Your task to perform on an android device: Search for the best rated kitchen reno kits on Lowes.com Image 0: 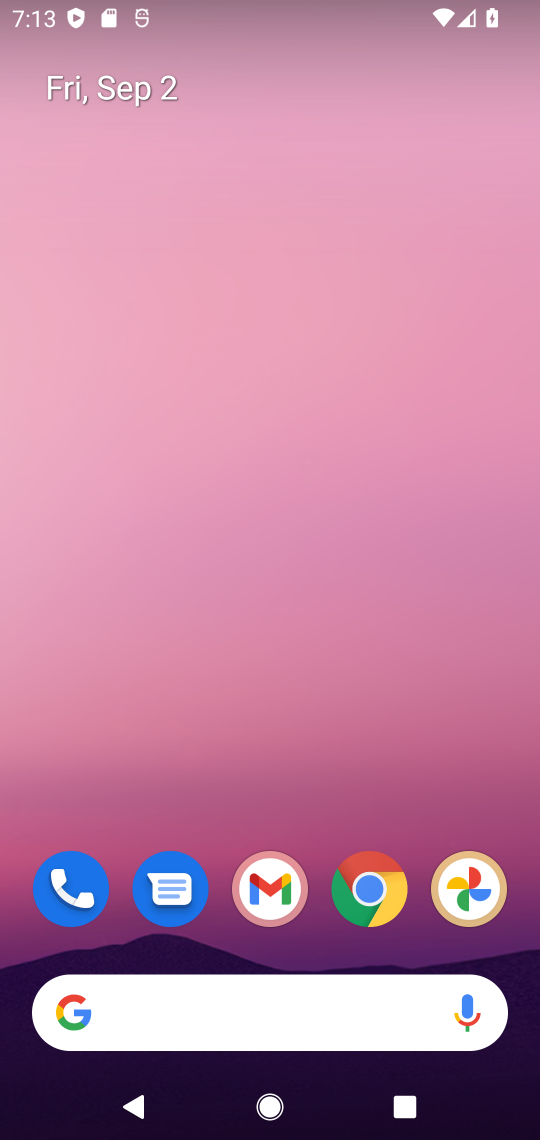
Step 0: click (315, 982)
Your task to perform on an android device: Search for the best rated kitchen reno kits on Lowes.com Image 1: 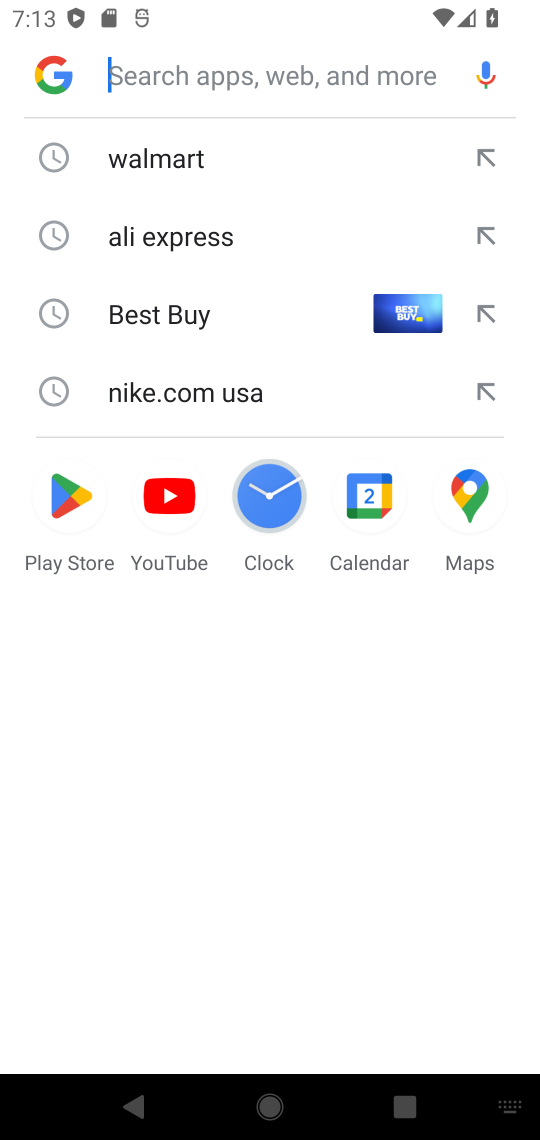
Step 1: type "Lowes.com"
Your task to perform on an android device: Search for the best rated kitchen reno kits on Lowes.com Image 2: 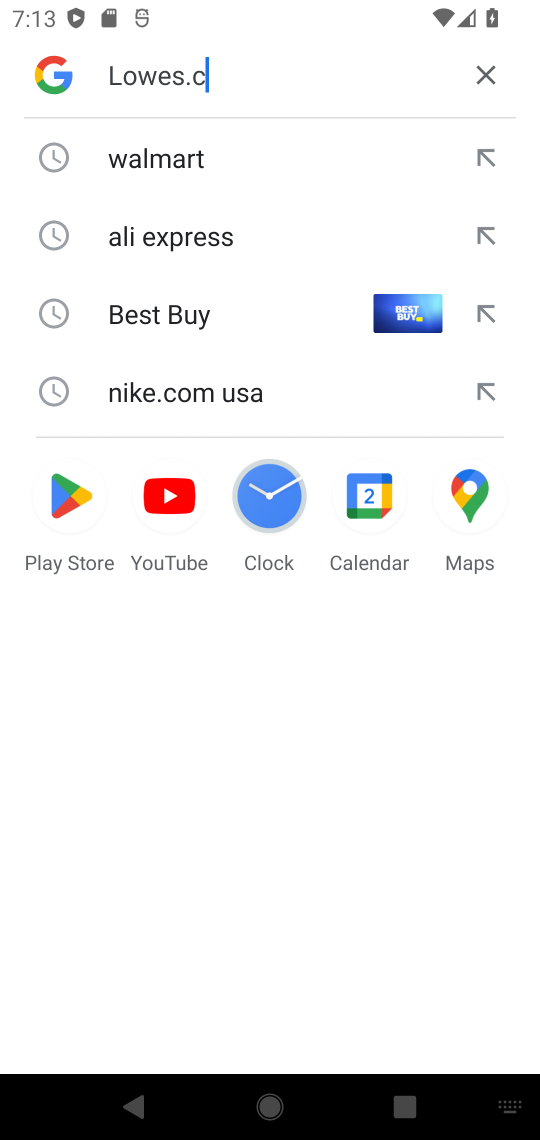
Step 2: type ""
Your task to perform on an android device: Search for the best rated kitchen reno kits on Lowes.com Image 3: 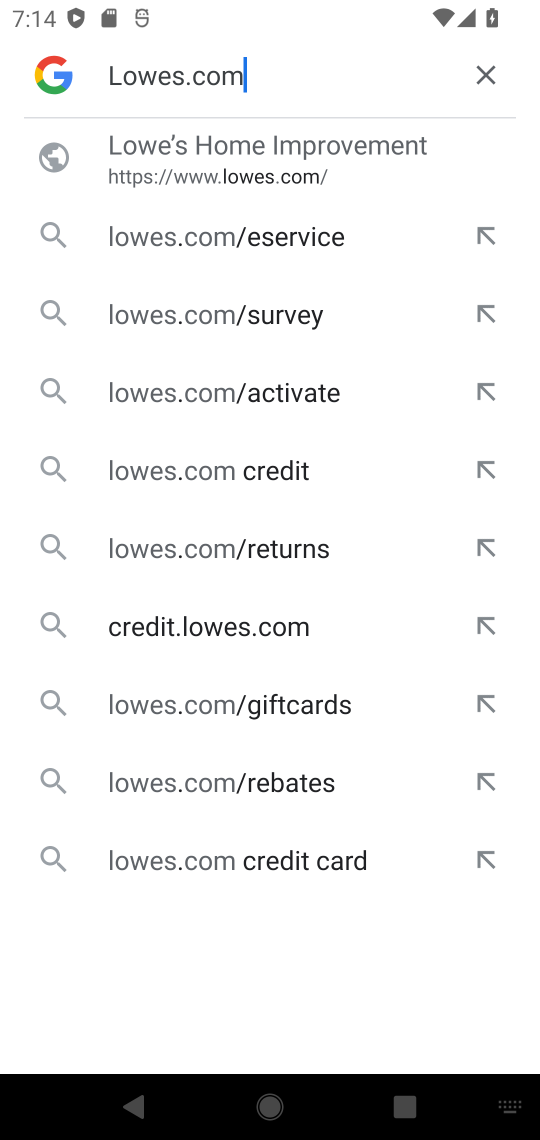
Step 3: click (235, 170)
Your task to perform on an android device: Search for the best rated kitchen reno kits on Lowes.com Image 4: 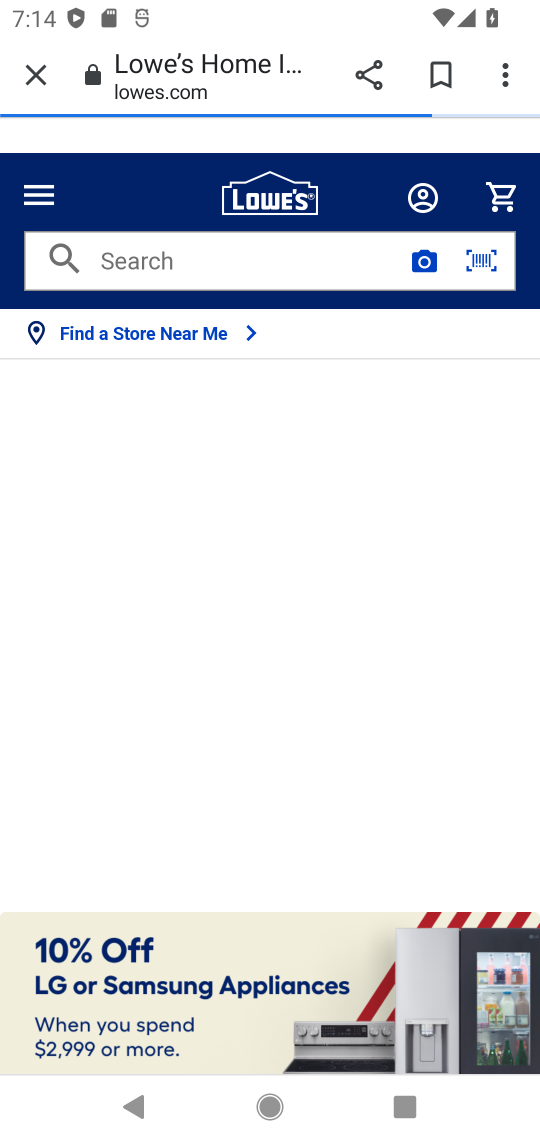
Step 4: click (248, 190)
Your task to perform on an android device: Search for the best rated kitchen reno kits on Lowes.com Image 5: 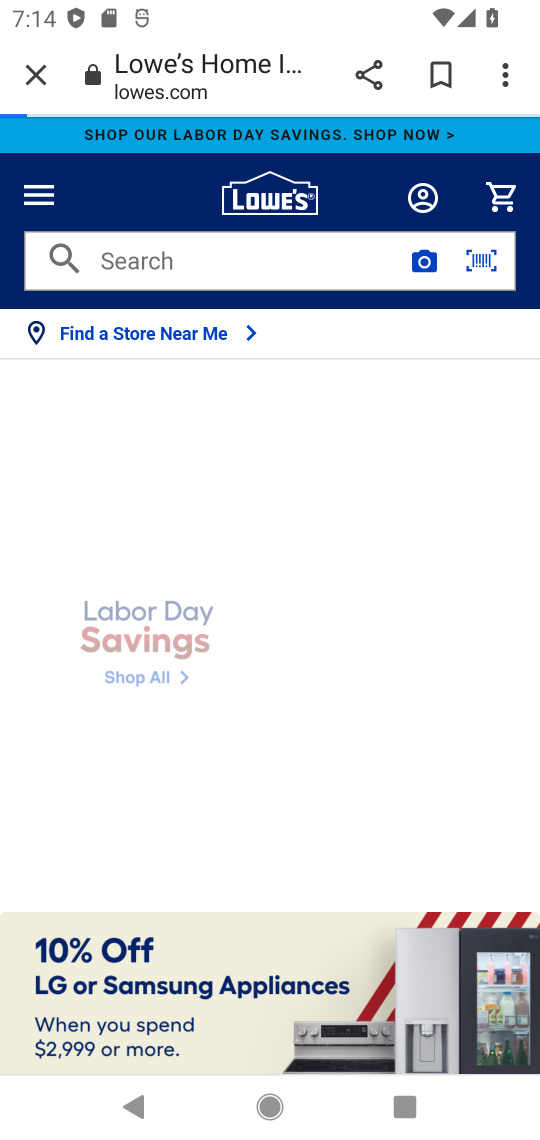
Step 5: click (256, 274)
Your task to perform on an android device: Search for the best rated kitchen reno kits on Lowes.com Image 6: 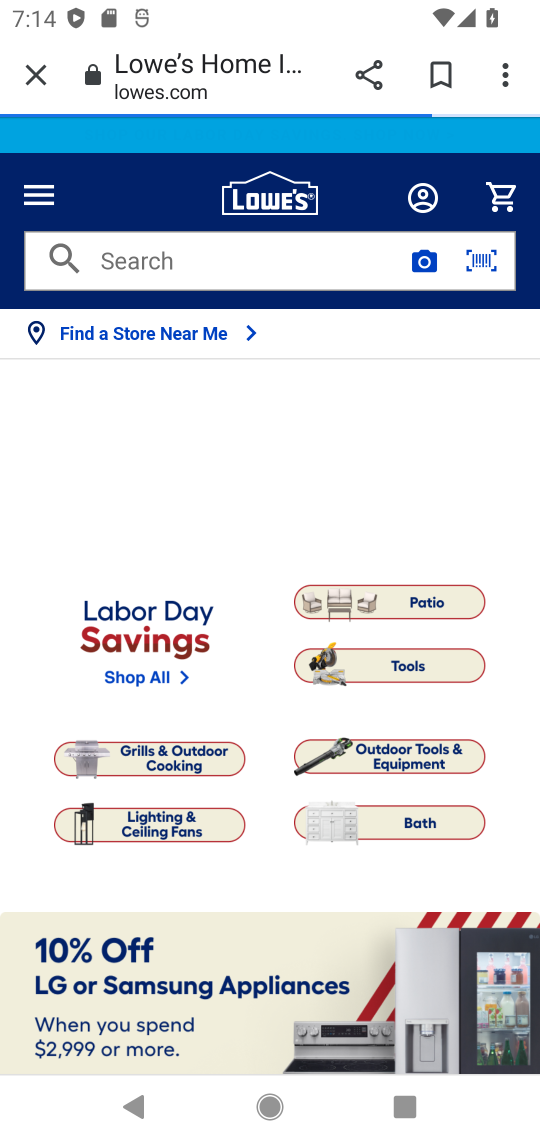
Step 6: click (245, 261)
Your task to perform on an android device: Search for the best rated kitchen reno kits on Lowes.com Image 7: 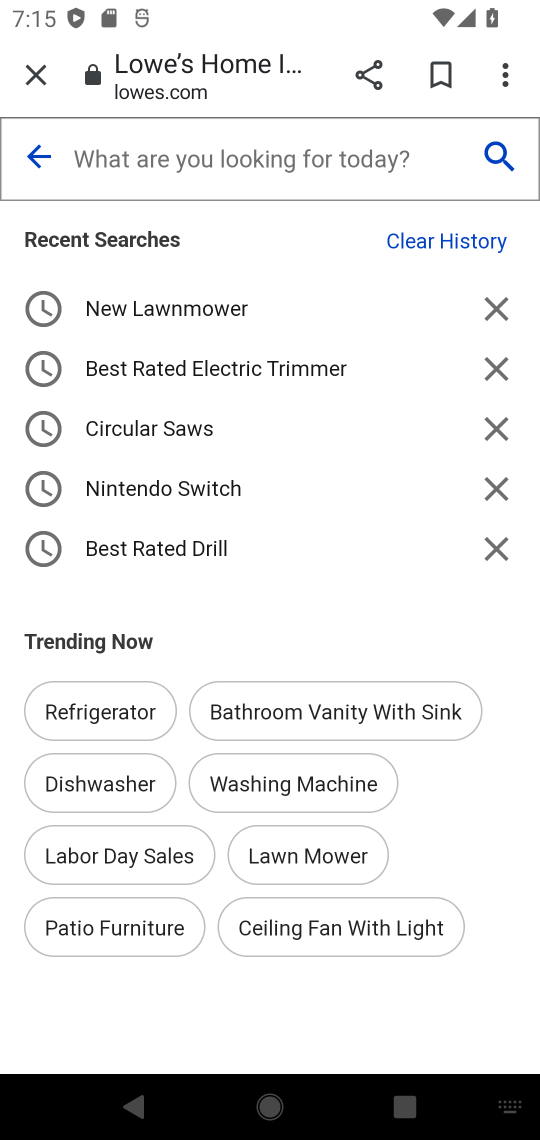
Step 7: type "kitchen reno kits"
Your task to perform on an android device: Search for the best rated kitchen reno kits on Lowes.com Image 8: 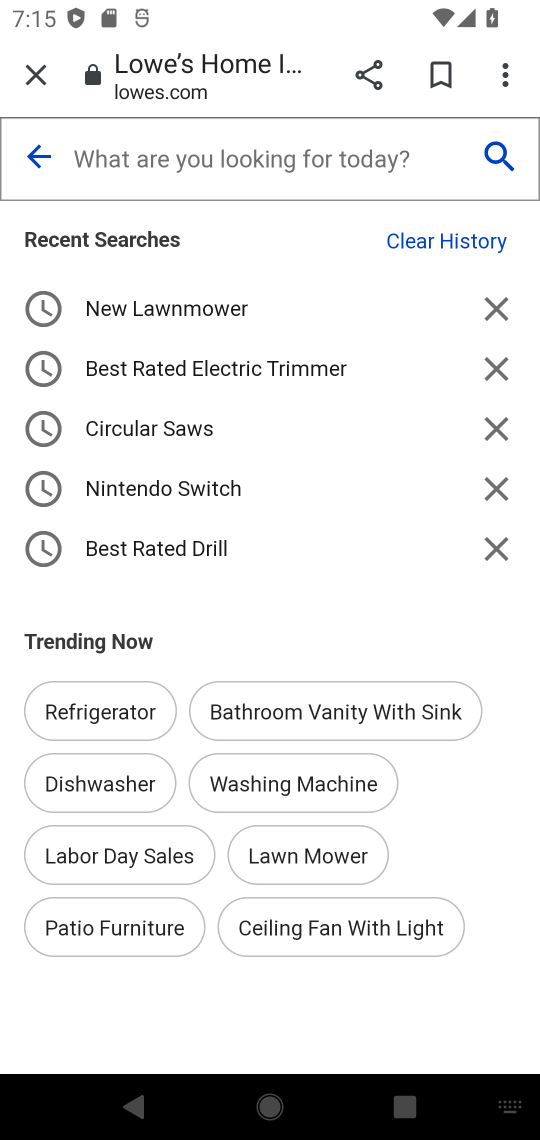
Step 8: type ""
Your task to perform on an android device: Search for the best rated kitchen reno kits on Lowes.com Image 9: 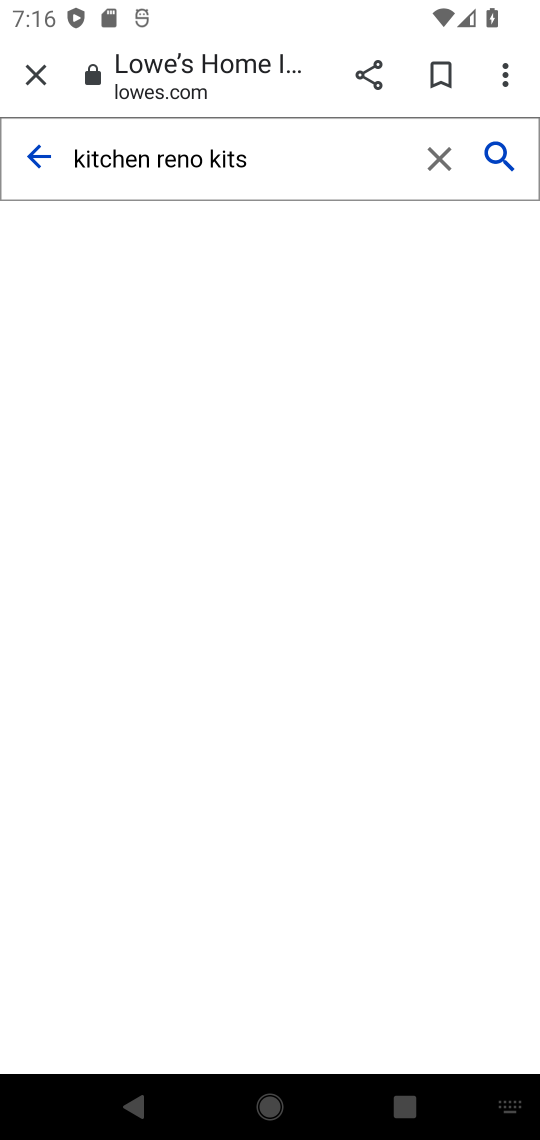
Step 9: click (504, 143)
Your task to perform on an android device: Search for the best rated kitchen reno kits on Lowes.com Image 10: 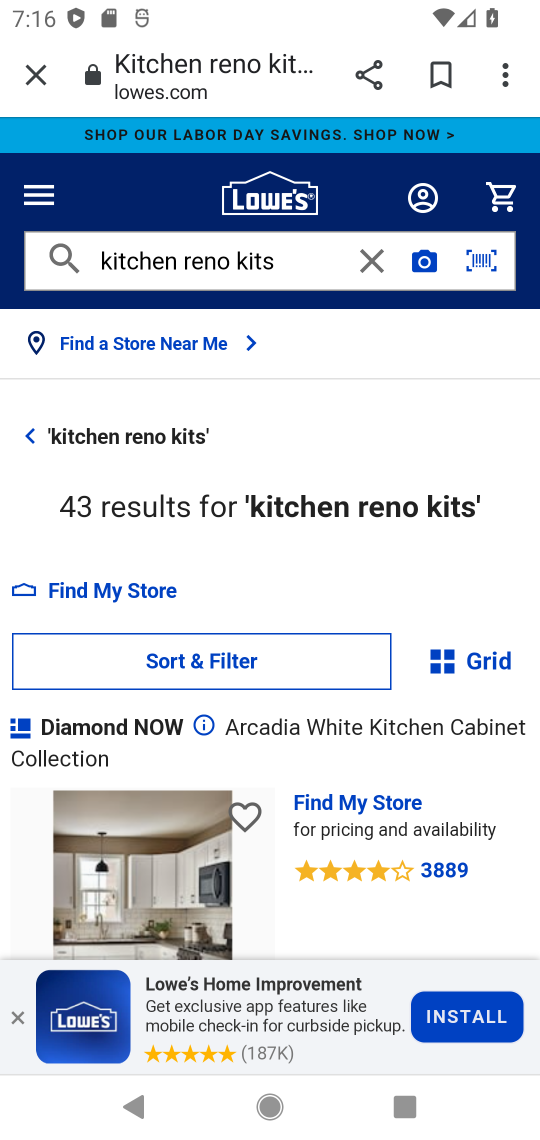
Step 10: task complete